Your task to perform on an android device: open sync settings in chrome Image 0: 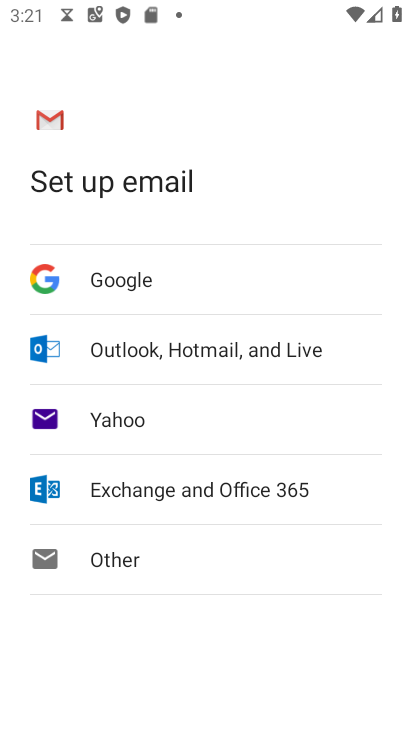
Step 0: press home button
Your task to perform on an android device: open sync settings in chrome Image 1: 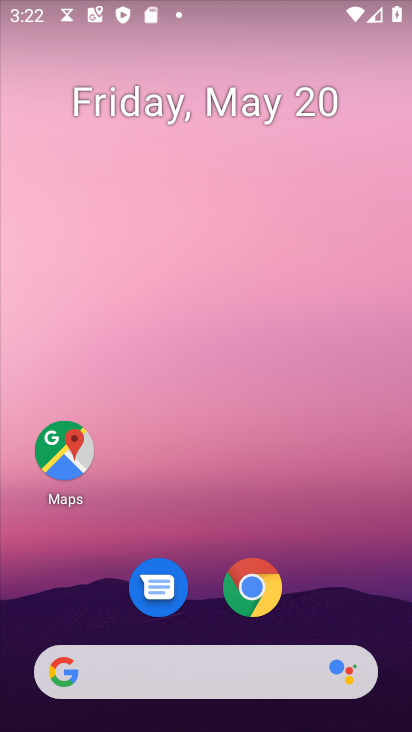
Step 1: click (260, 594)
Your task to perform on an android device: open sync settings in chrome Image 2: 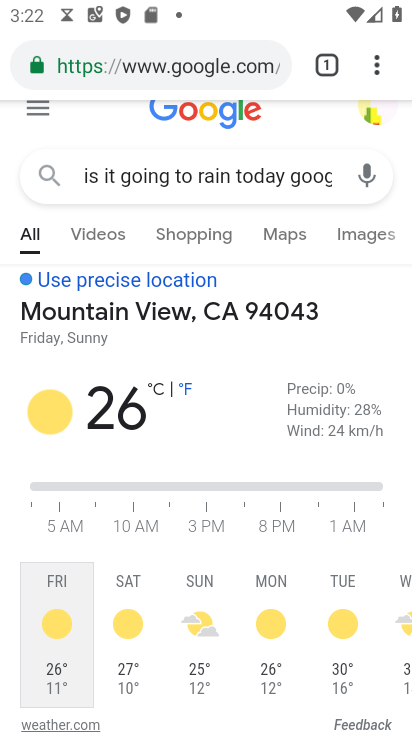
Step 2: click (380, 60)
Your task to perform on an android device: open sync settings in chrome Image 3: 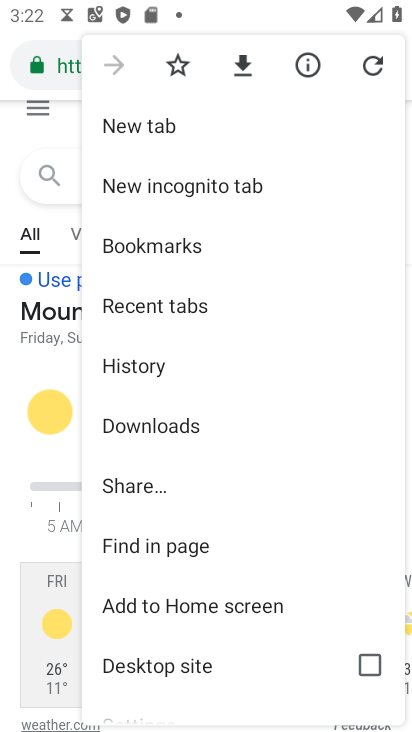
Step 3: drag from (233, 654) to (162, 200)
Your task to perform on an android device: open sync settings in chrome Image 4: 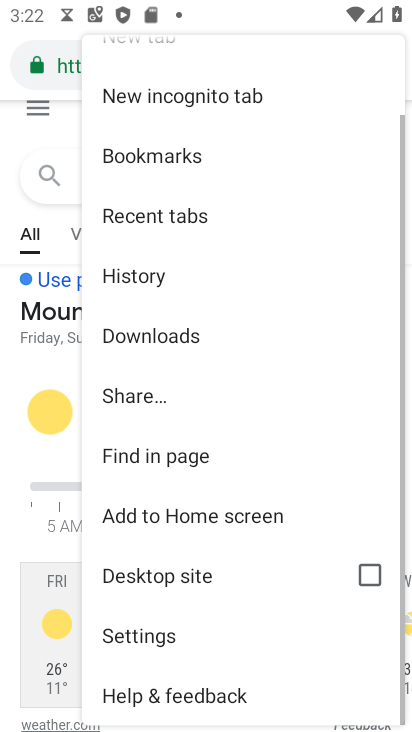
Step 4: click (182, 638)
Your task to perform on an android device: open sync settings in chrome Image 5: 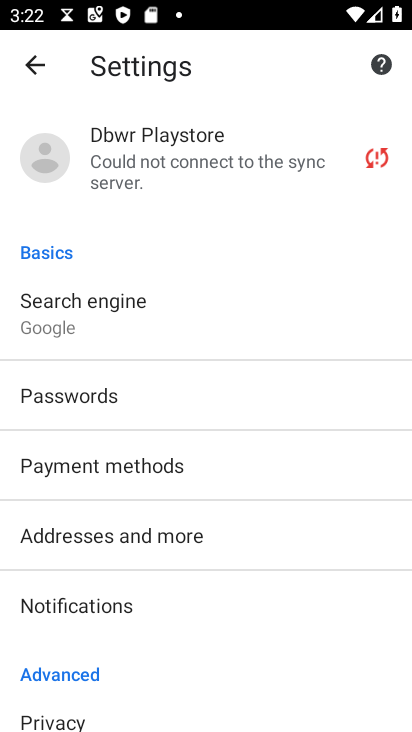
Step 5: click (184, 151)
Your task to perform on an android device: open sync settings in chrome Image 6: 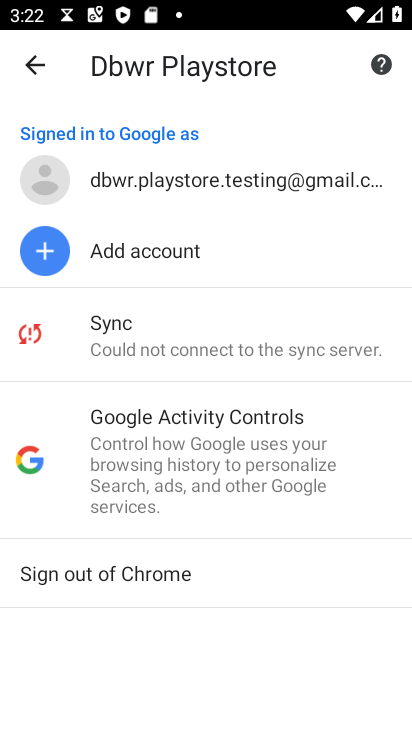
Step 6: click (242, 334)
Your task to perform on an android device: open sync settings in chrome Image 7: 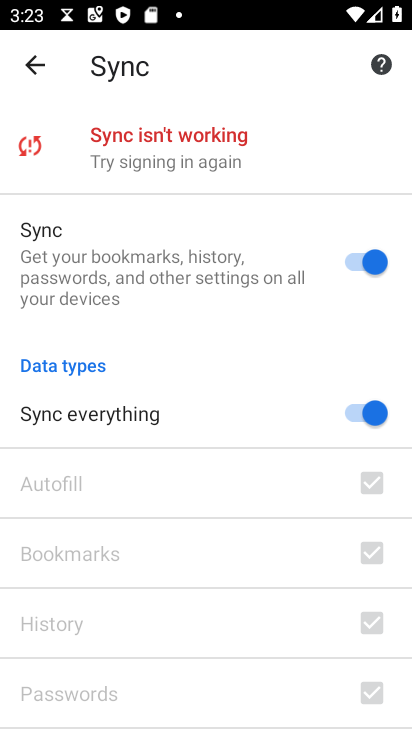
Step 7: task complete